Your task to perform on an android device: Open the web browser Image 0: 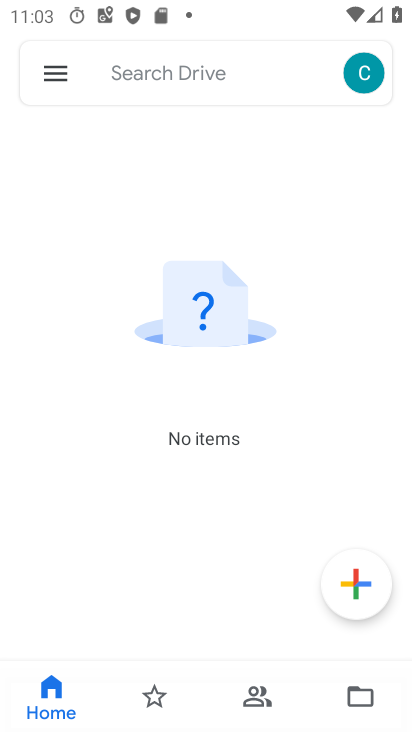
Step 0: press home button
Your task to perform on an android device: Open the web browser Image 1: 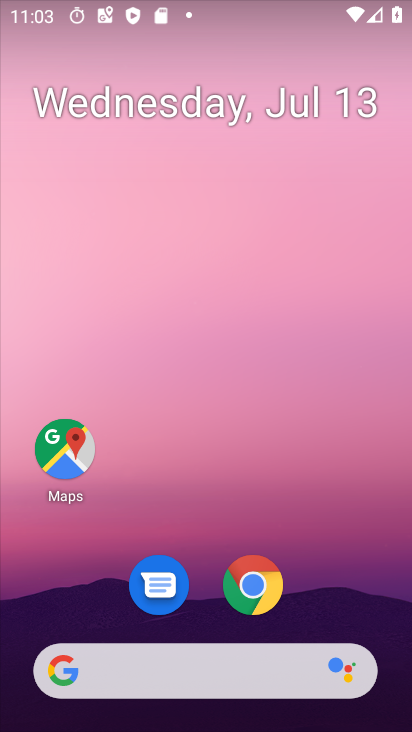
Step 1: click (250, 594)
Your task to perform on an android device: Open the web browser Image 2: 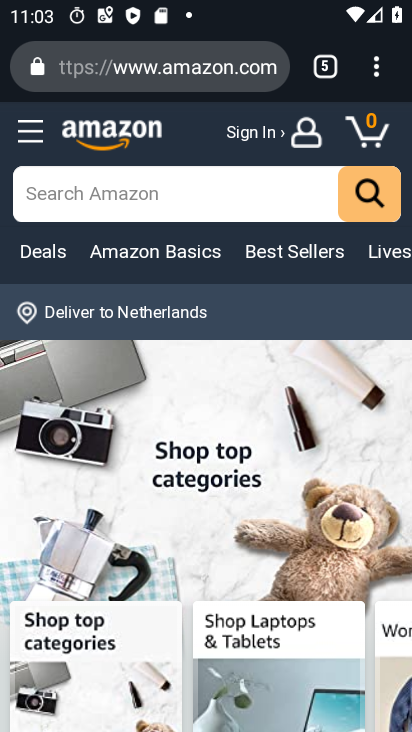
Step 2: click (380, 70)
Your task to perform on an android device: Open the web browser Image 3: 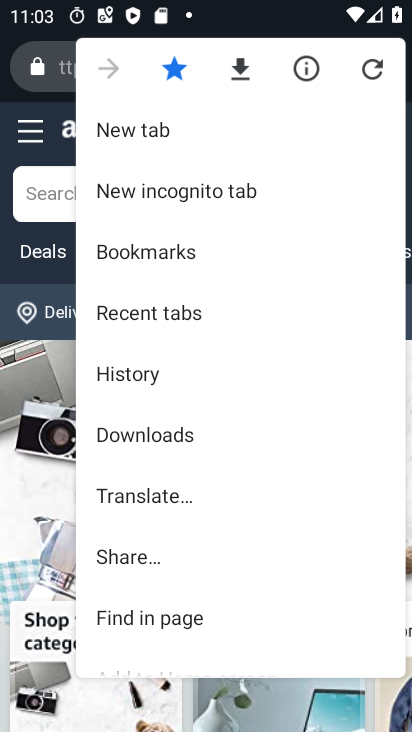
Step 3: click (204, 126)
Your task to perform on an android device: Open the web browser Image 4: 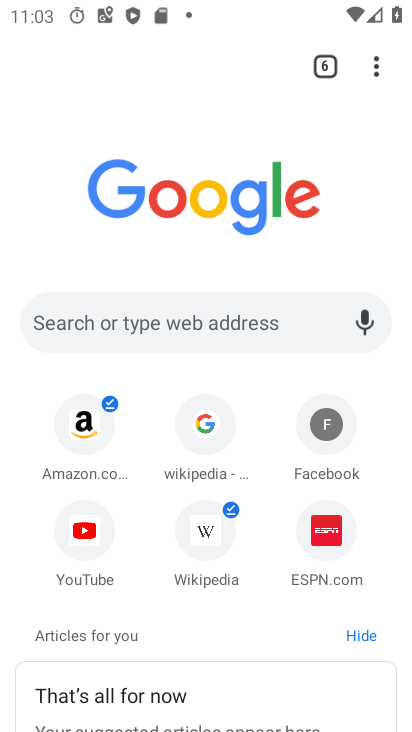
Step 4: task complete